Your task to perform on an android device: Open CNN.com Image 0: 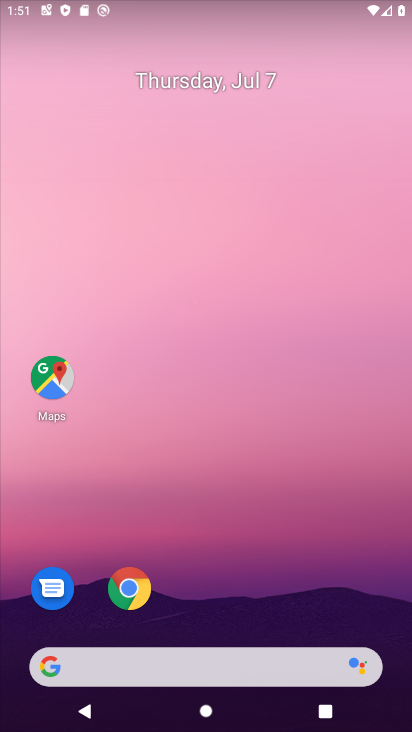
Step 0: drag from (10, 702) to (133, 15)
Your task to perform on an android device: Open CNN.com Image 1: 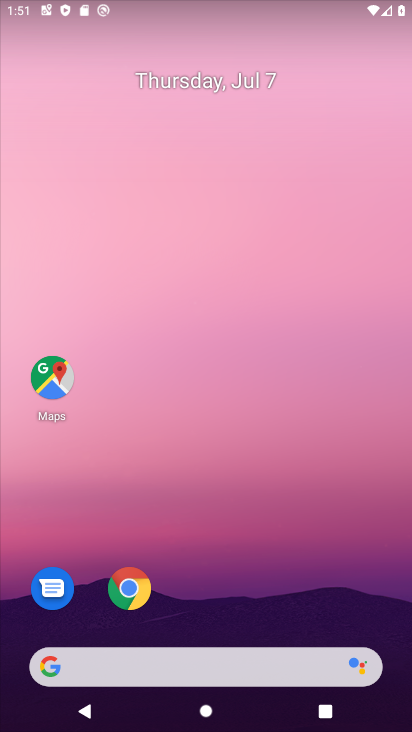
Step 1: click (130, 650)
Your task to perform on an android device: Open CNN.com Image 2: 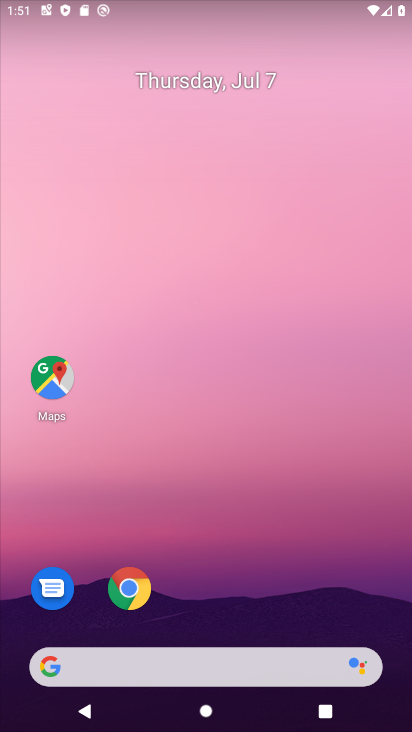
Step 2: click (112, 667)
Your task to perform on an android device: Open CNN.com Image 3: 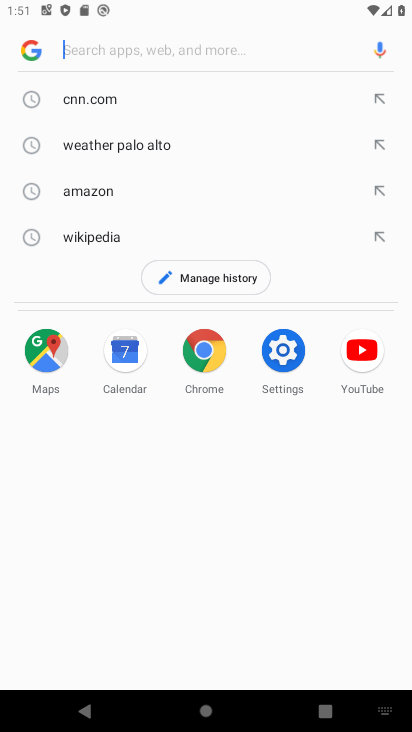
Step 3: type " CNN.com"
Your task to perform on an android device: Open CNN.com Image 4: 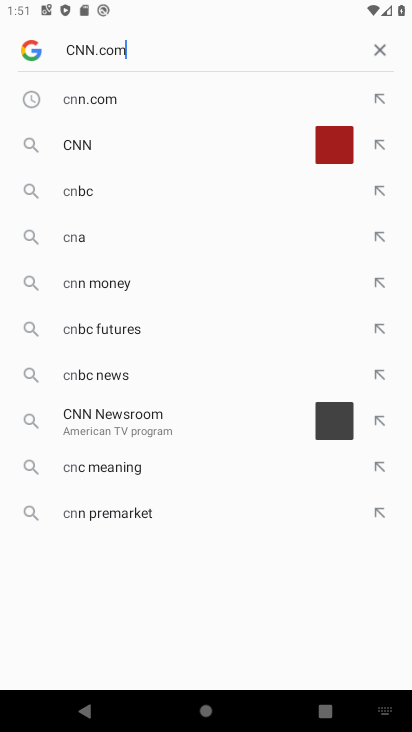
Step 4: type ""
Your task to perform on an android device: Open CNN.com Image 5: 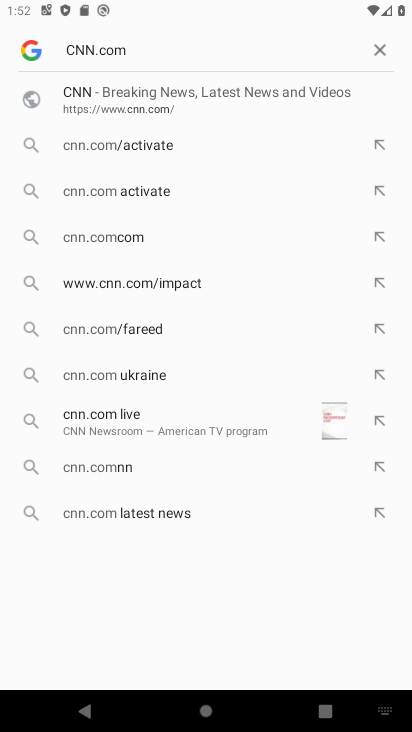
Step 5: type "   "
Your task to perform on an android device: Open CNN.com Image 6: 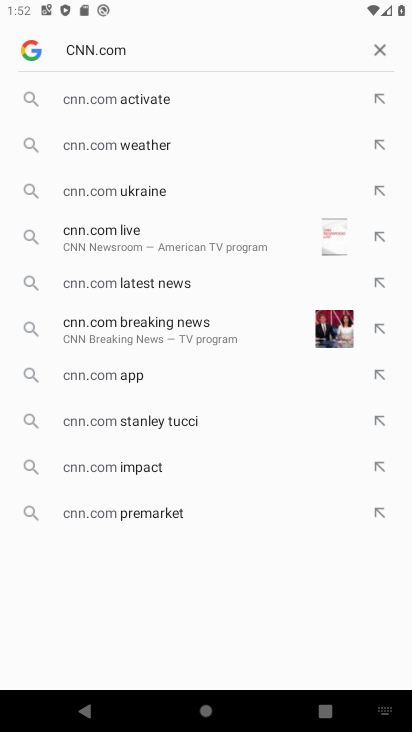
Step 6: type "  "
Your task to perform on an android device: Open CNN.com Image 7: 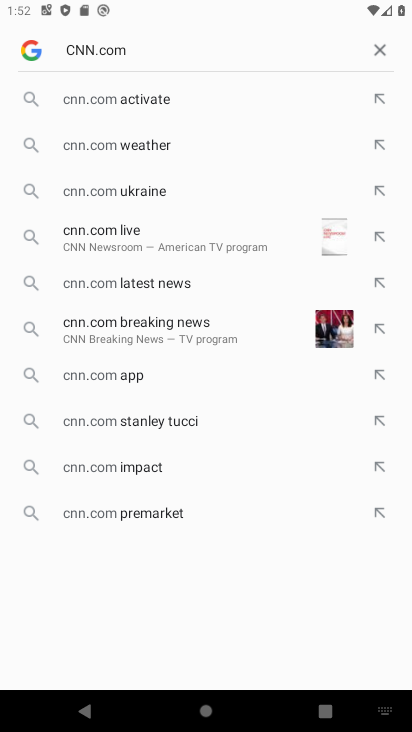
Step 7: type "   "
Your task to perform on an android device: Open CNN.com Image 8: 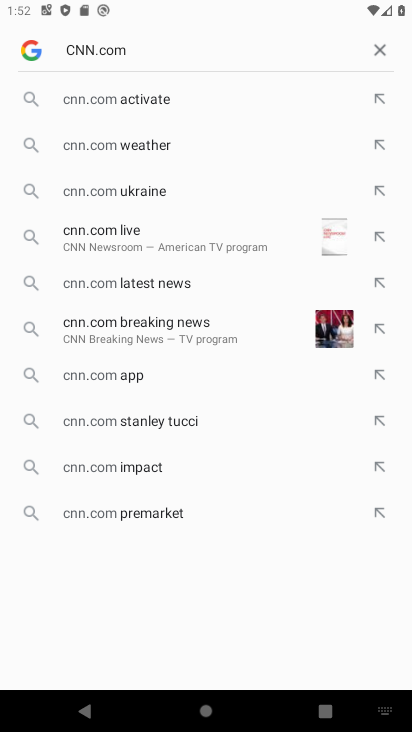
Step 8: click (147, 48)
Your task to perform on an android device: Open CNN.com Image 9: 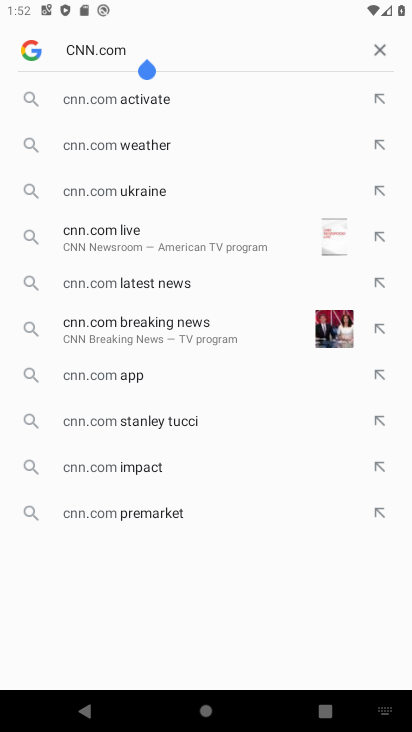
Step 9: click (147, 48)
Your task to perform on an android device: Open CNN.com Image 10: 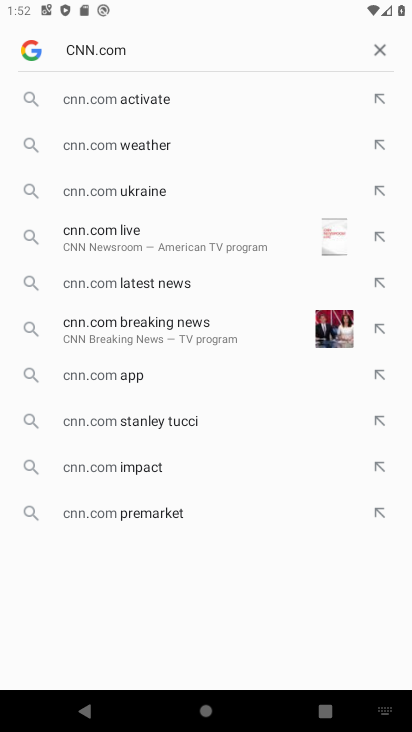
Step 10: click (128, 50)
Your task to perform on an android device: Open CNN.com Image 11: 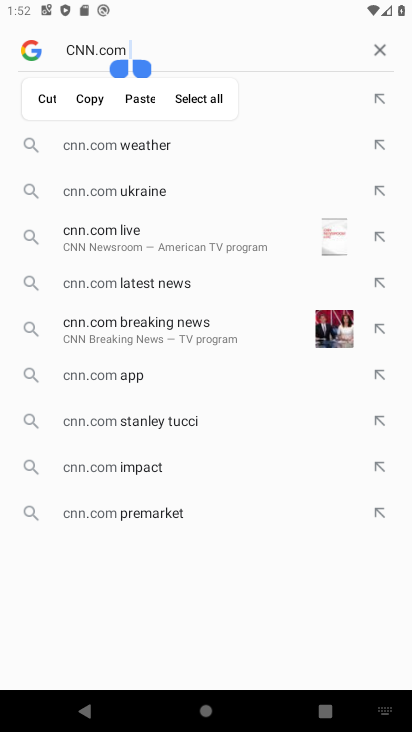
Step 11: click (173, 50)
Your task to perform on an android device: Open CNN.com Image 12: 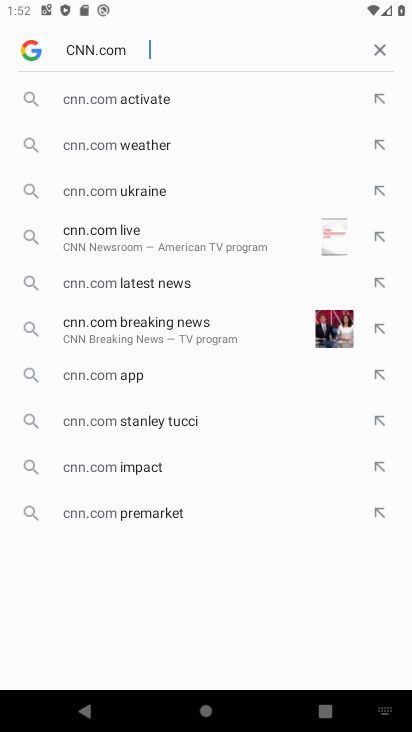
Step 12: task complete